Your task to perform on an android device: toggle javascript in the chrome app Image 0: 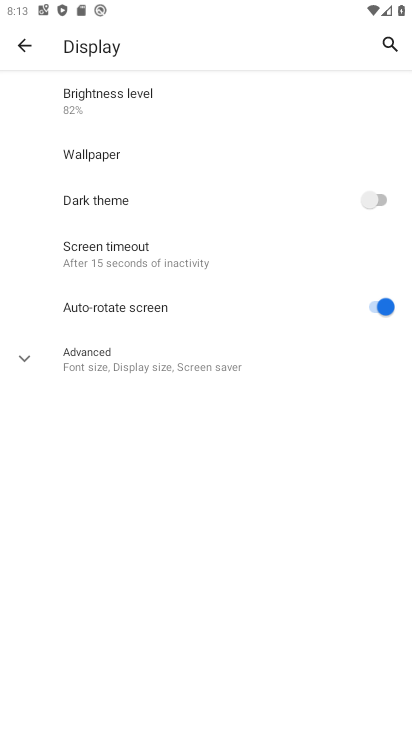
Step 0: press home button
Your task to perform on an android device: toggle javascript in the chrome app Image 1: 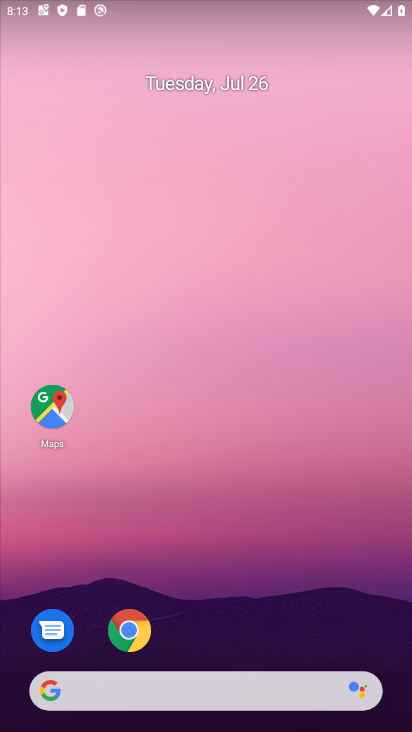
Step 1: click (142, 641)
Your task to perform on an android device: toggle javascript in the chrome app Image 2: 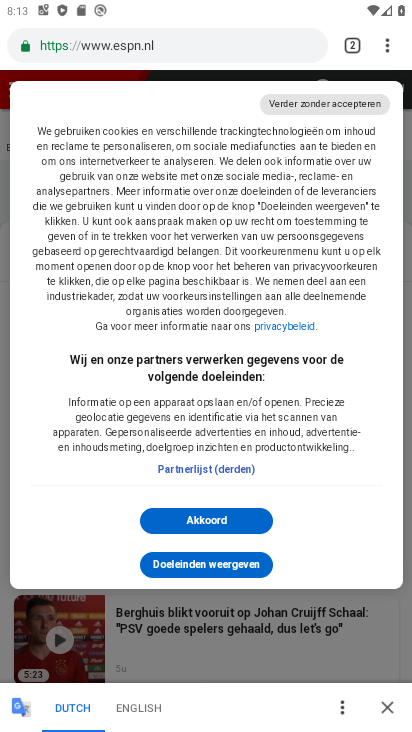
Step 2: click (387, 45)
Your task to perform on an android device: toggle javascript in the chrome app Image 3: 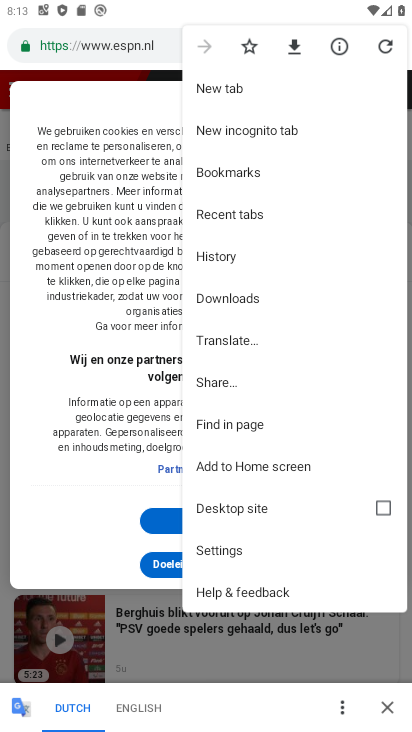
Step 3: click (247, 549)
Your task to perform on an android device: toggle javascript in the chrome app Image 4: 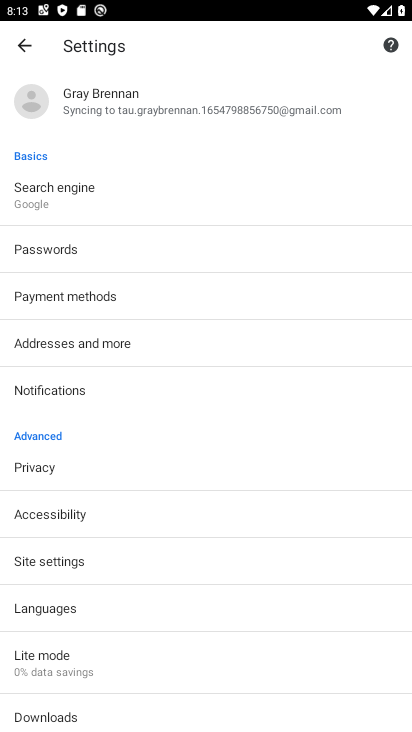
Step 4: click (87, 558)
Your task to perform on an android device: toggle javascript in the chrome app Image 5: 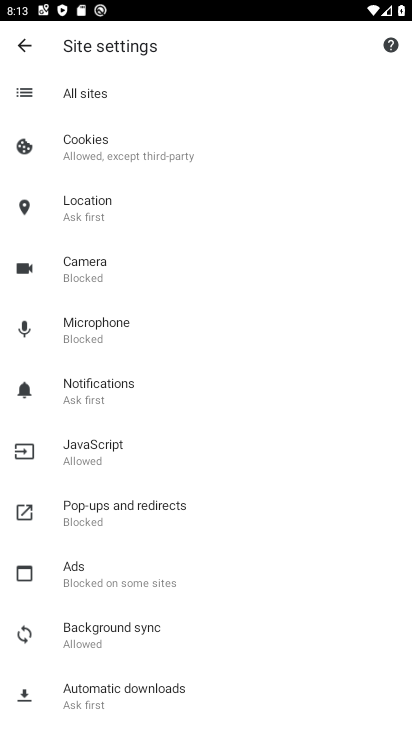
Step 5: click (104, 459)
Your task to perform on an android device: toggle javascript in the chrome app Image 6: 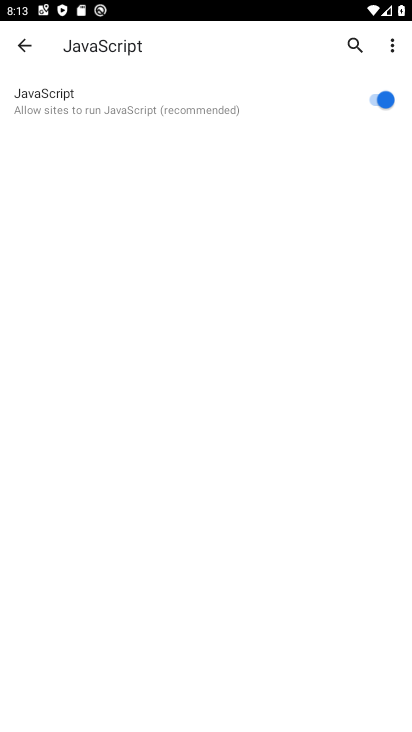
Step 6: click (383, 86)
Your task to perform on an android device: toggle javascript in the chrome app Image 7: 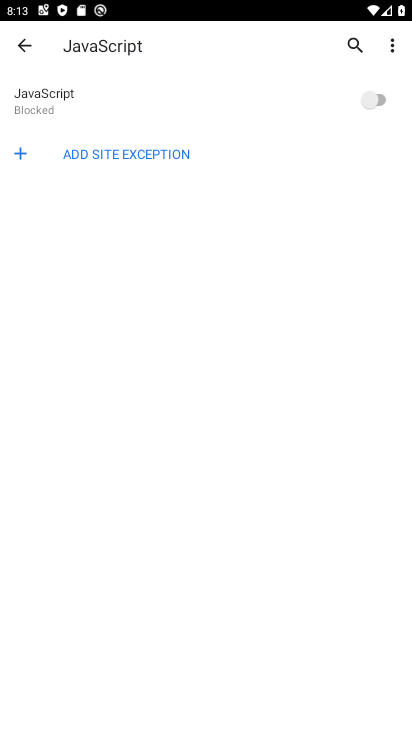
Step 7: task complete